Your task to perform on an android device: toggle priority inbox in the gmail app Image 0: 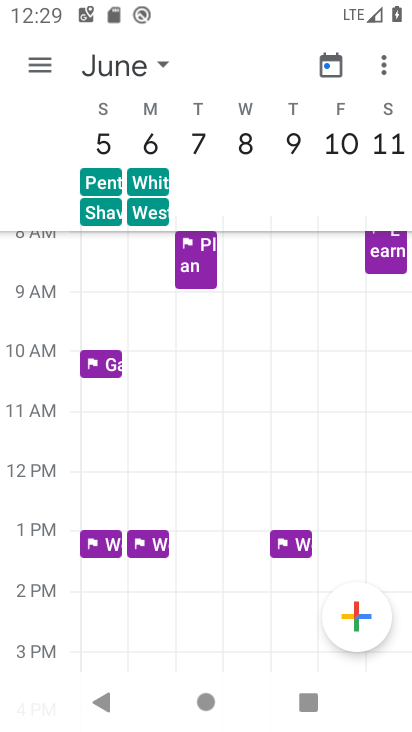
Step 0: press home button
Your task to perform on an android device: toggle priority inbox in the gmail app Image 1: 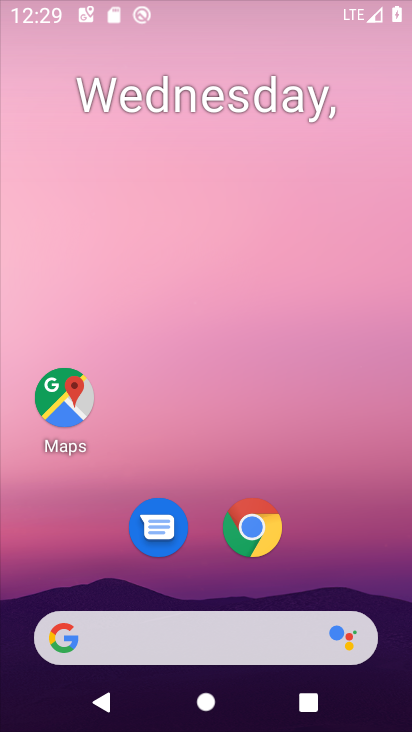
Step 1: drag from (353, 617) to (317, 71)
Your task to perform on an android device: toggle priority inbox in the gmail app Image 2: 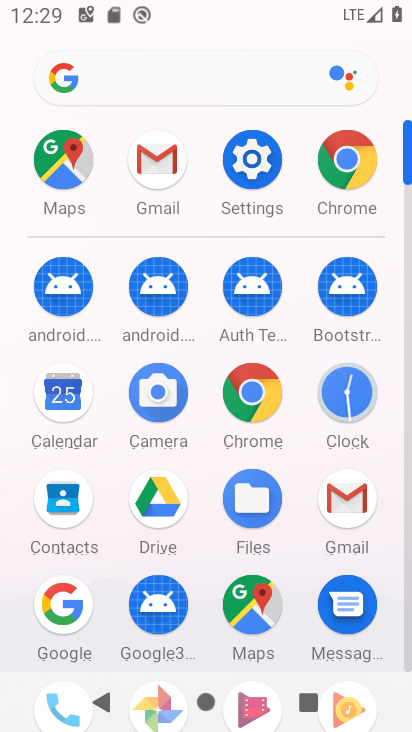
Step 2: click (344, 495)
Your task to perform on an android device: toggle priority inbox in the gmail app Image 3: 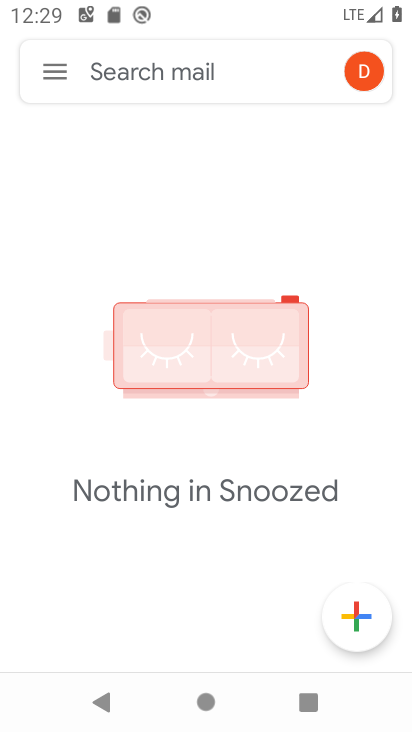
Step 3: click (52, 63)
Your task to perform on an android device: toggle priority inbox in the gmail app Image 4: 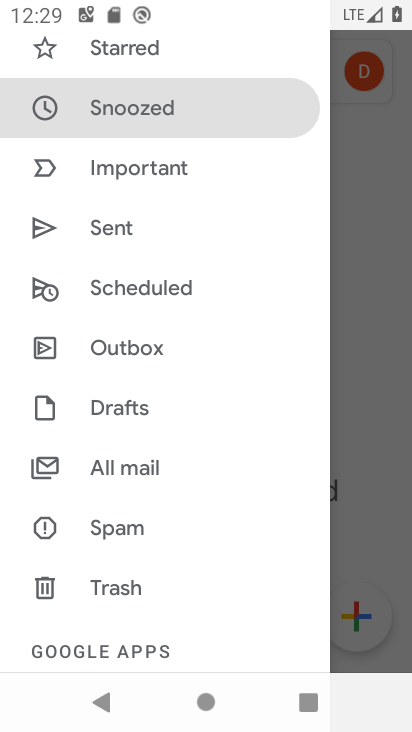
Step 4: drag from (219, 586) to (268, 99)
Your task to perform on an android device: toggle priority inbox in the gmail app Image 5: 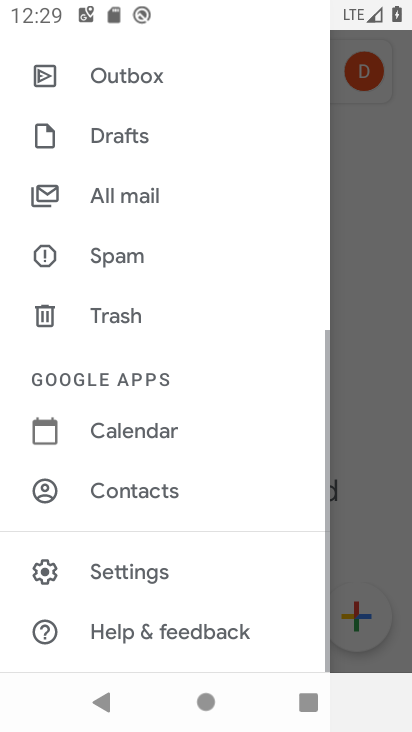
Step 5: click (195, 583)
Your task to perform on an android device: toggle priority inbox in the gmail app Image 6: 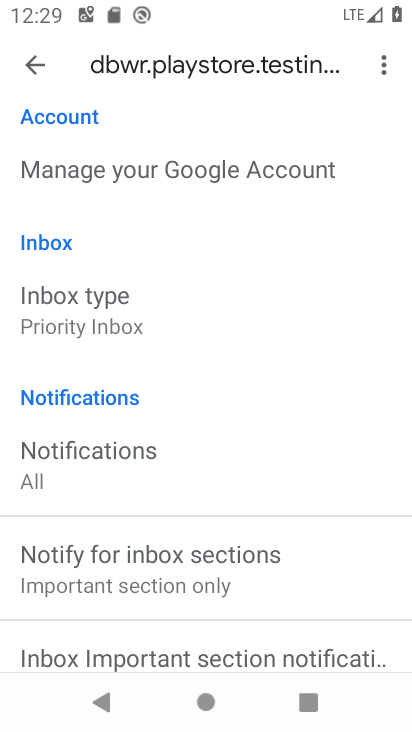
Step 6: click (91, 304)
Your task to perform on an android device: toggle priority inbox in the gmail app Image 7: 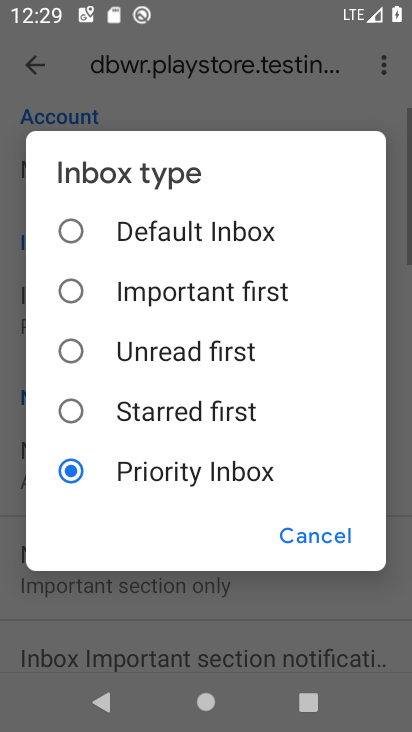
Step 7: click (136, 226)
Your task to perform on an android device: toggle priority inbox in the gmail app Image 8: 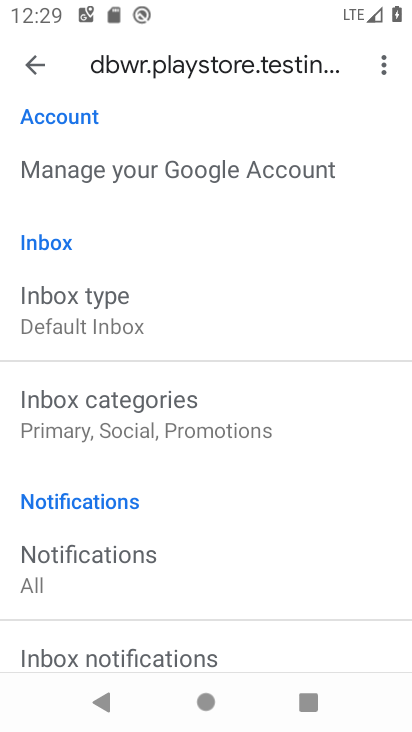
Step 8: task complete